Your task to perform on an android device: open app "Firefox Browser" (install if not already installed) Image 0: 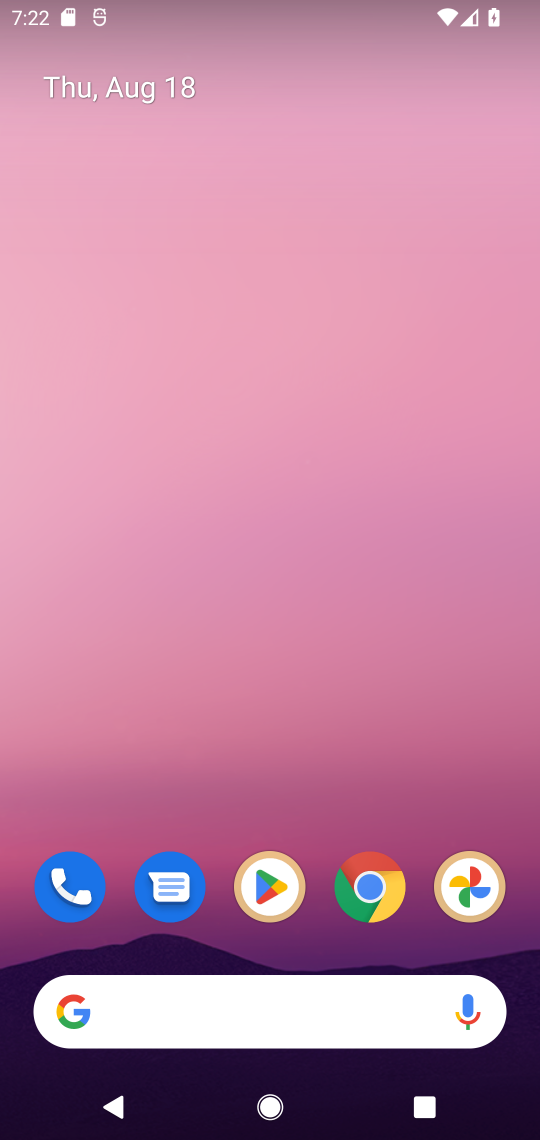
Step 0: click (275, 891)
Your task to perform on an android device: open app "Firefox Browser" (install if not already installed) Image 1: 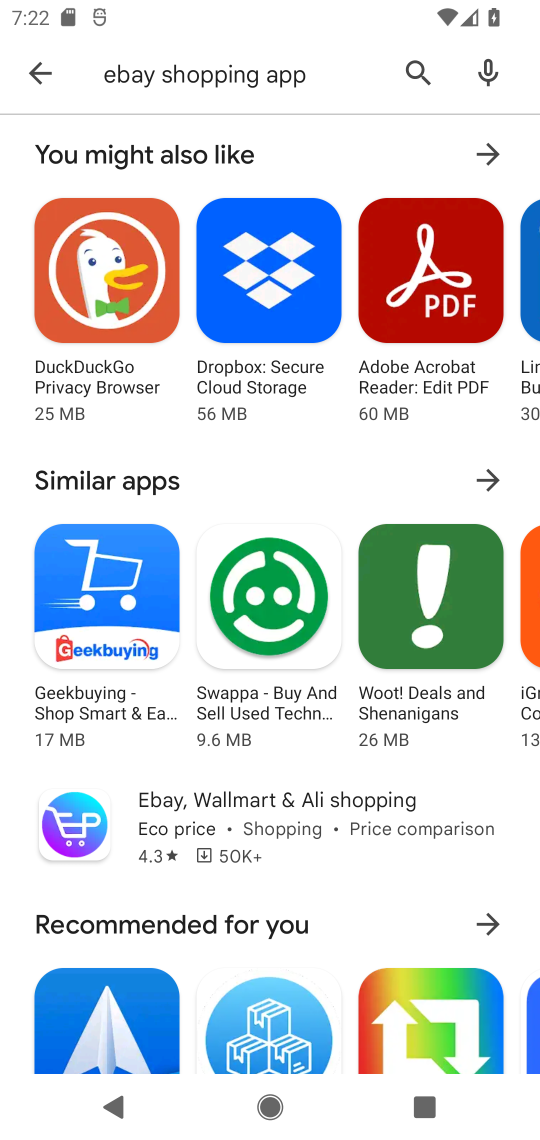
Step 1: click (419, 65)
Your task to perform on an android device: open app "Firefox Browser" (install if not already installed) Image 2: 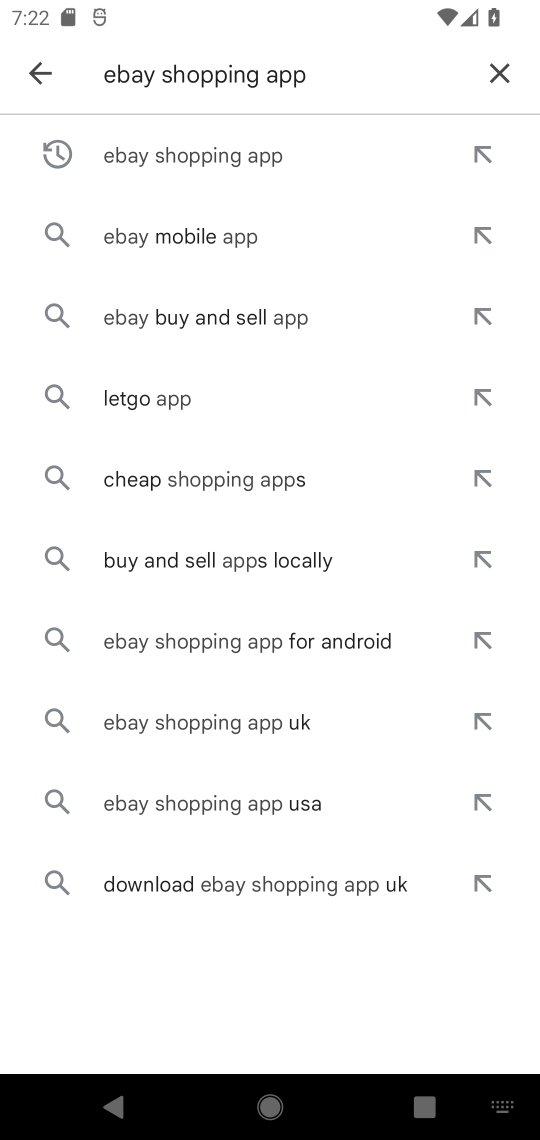
Step 2: click (501, 73)
Your task to perform on an android device: open app "Firefox Browser" (install if not already installed) Image 3: 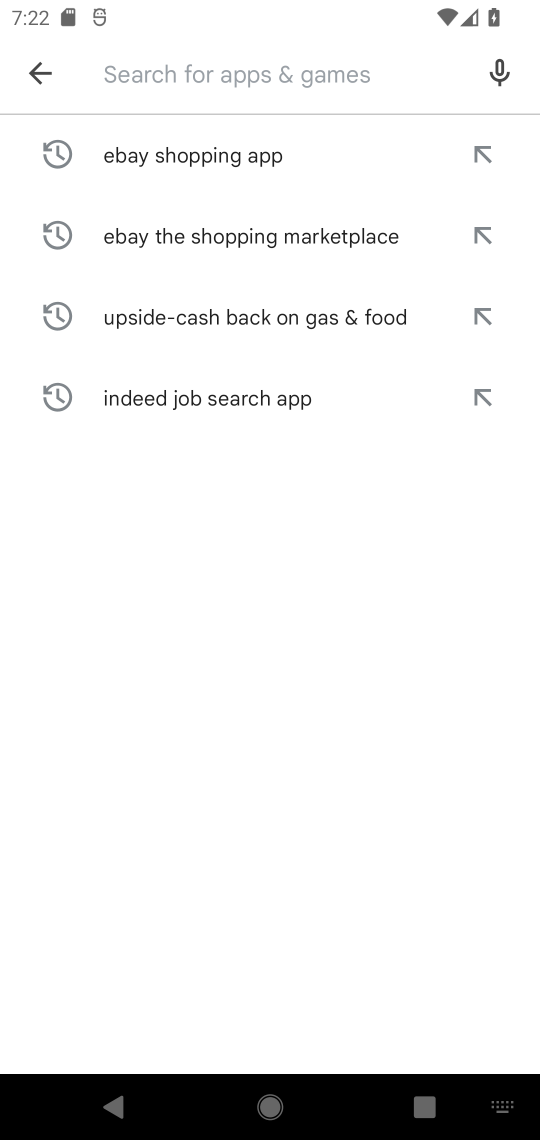
Step 3: type "Firefox Browser"
Your task to perform on an android device: open app "Firefox Browser" (install if not already installed) Image 4: 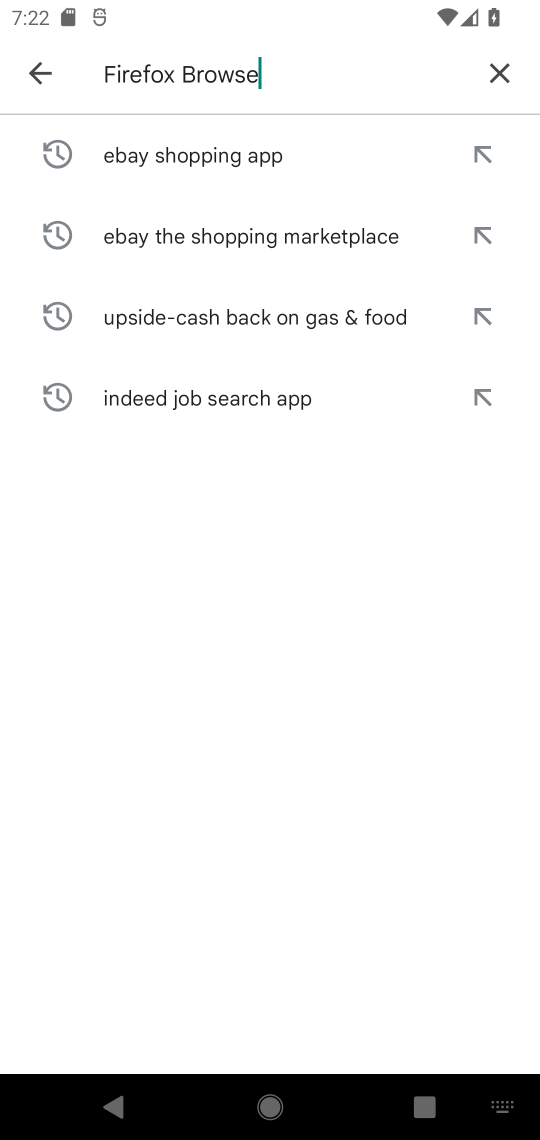
Step 4: type ""
Your task to perform on an android device: open app "Firefox Browser" (install if not already installed) Image 5: 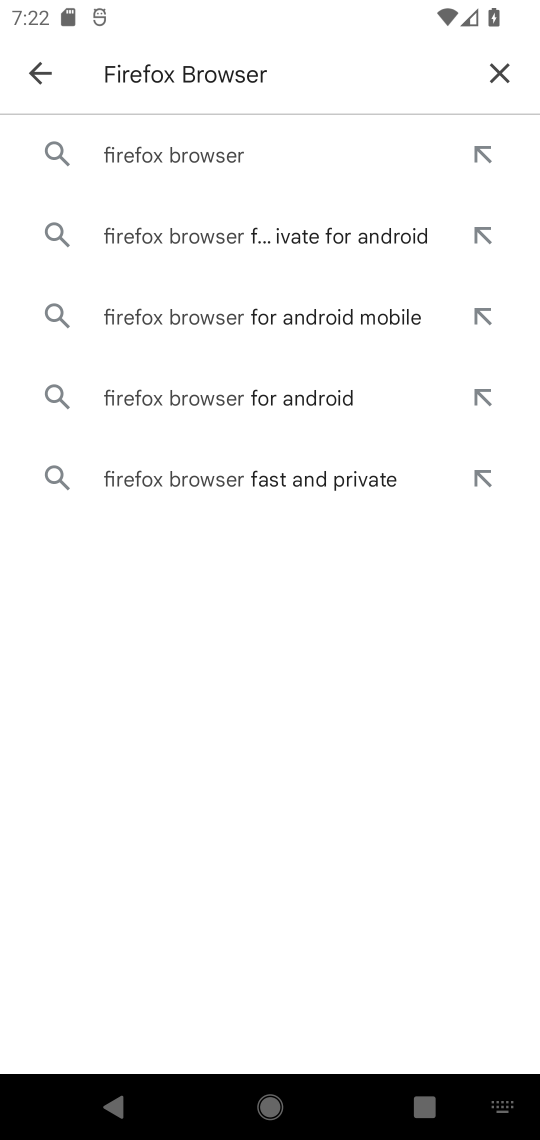
Step 5: click (213, 155)
Your task to perform on an android device: open app "Firefox Browser" (install if not already installed) Image 6: 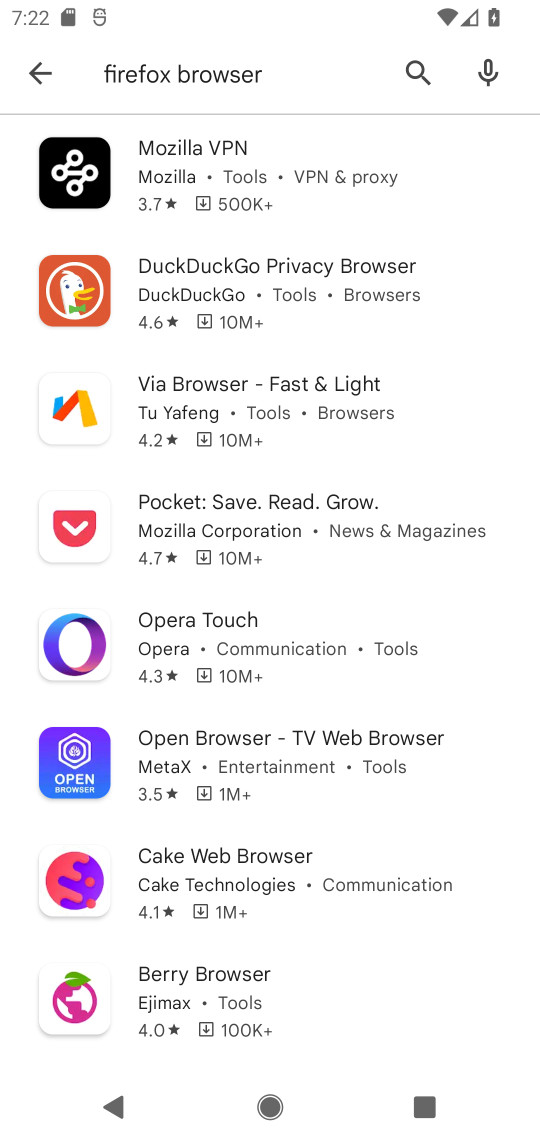
Step 6: press home button
Your task to perform on an android device: open app "Firefox Browser" (install if not already installed) Image 7: 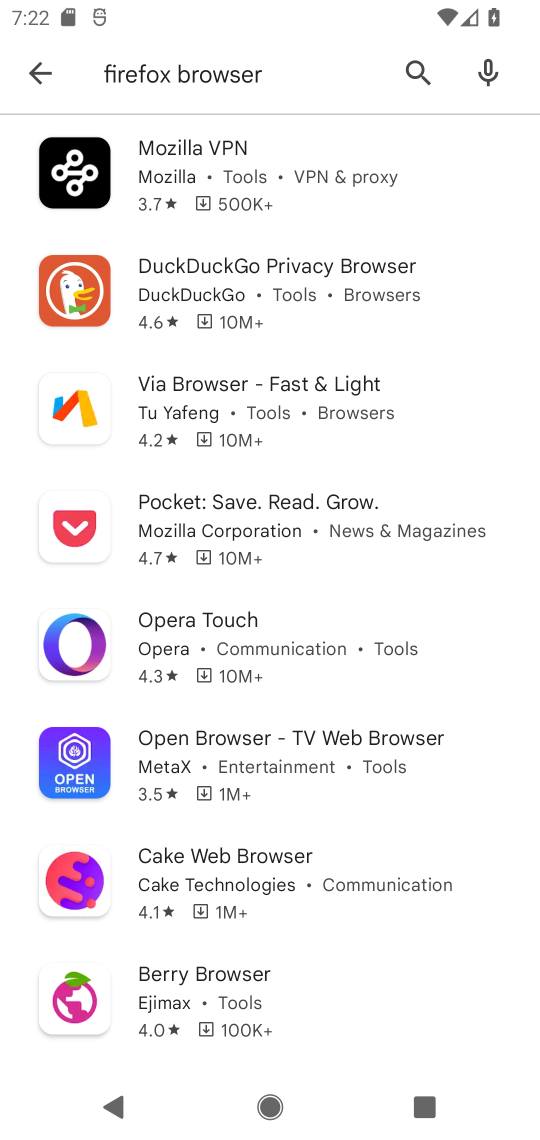
Step 7: press home button
Your task to perform on an android device: open app "Firefox Browser" (install if not already installed) Image 8: 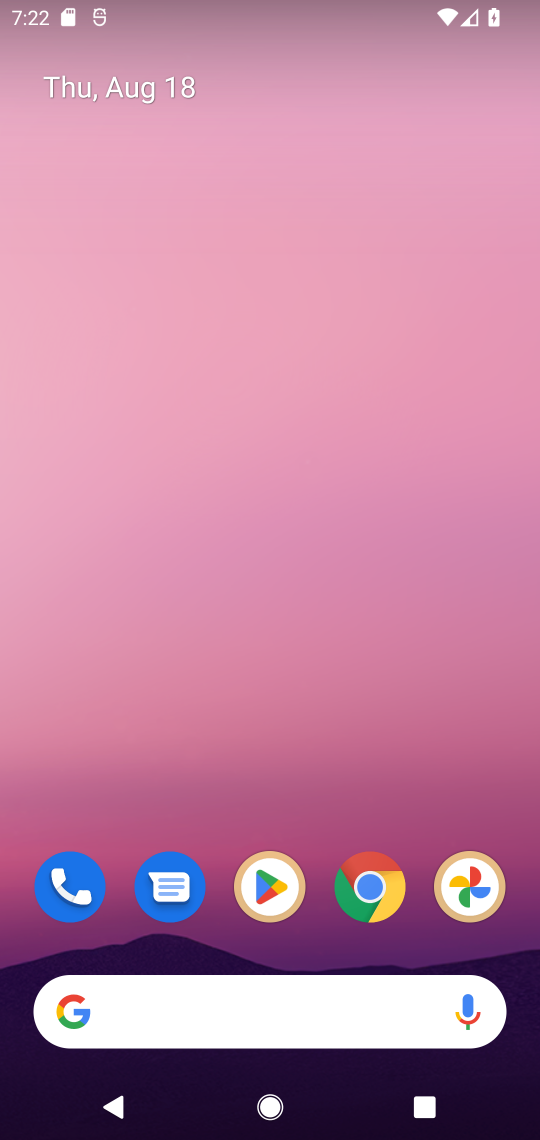
Step 8: drag from (339, 967) to (332, 18)
Your task to perform on an android device: open app "Firefox Browser" (install if not already installed) Image 9: 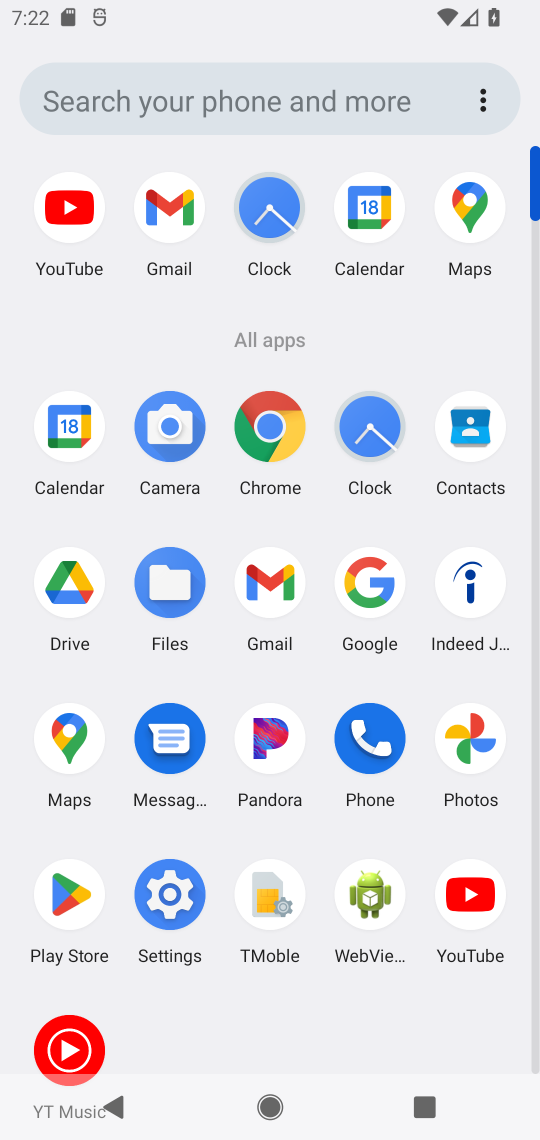
Step 9: click (51, 903)
Your task to perform on an android device: open app "Firefox Browser" (install if not already installed) Image 10: 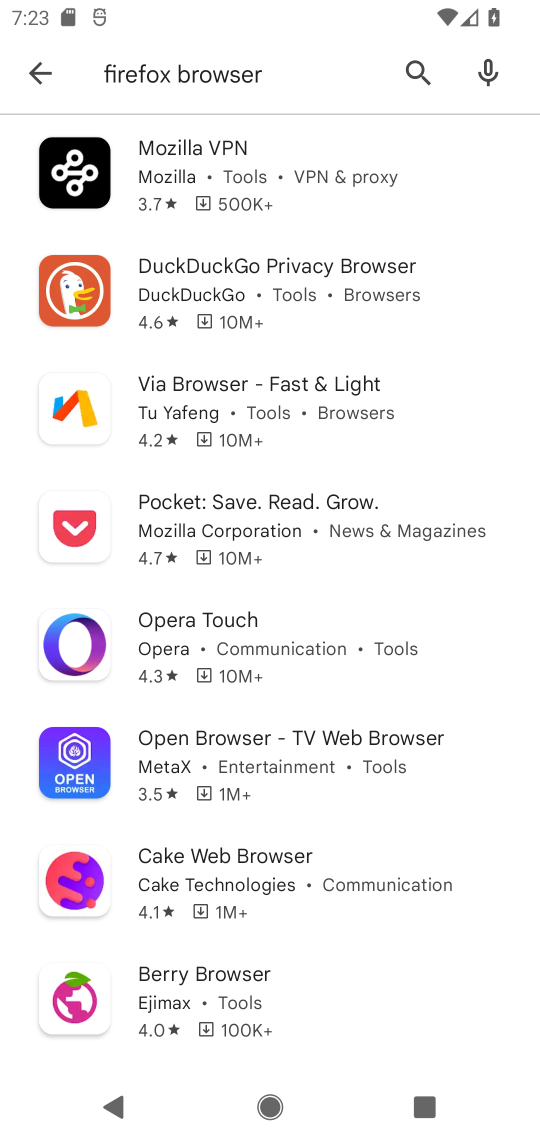
Step 10: task complete